Your task to perform on an android device: Clear the shopping cart on bestbuy. Image 0: 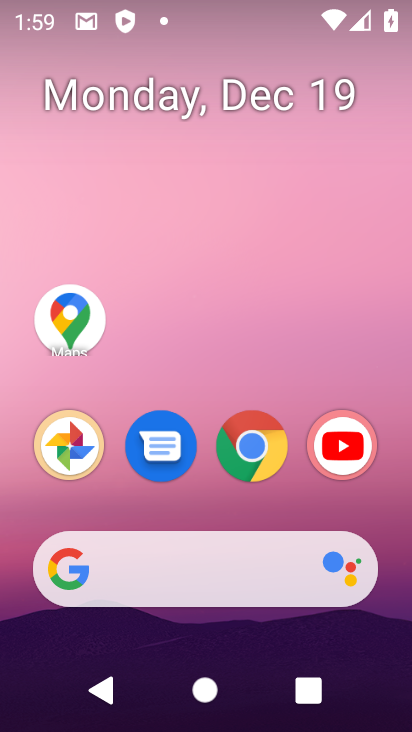
Step 0: click (264, 466)
Your task to perform on an android device: Clear the shopping cart on bestbuy. Image 1: 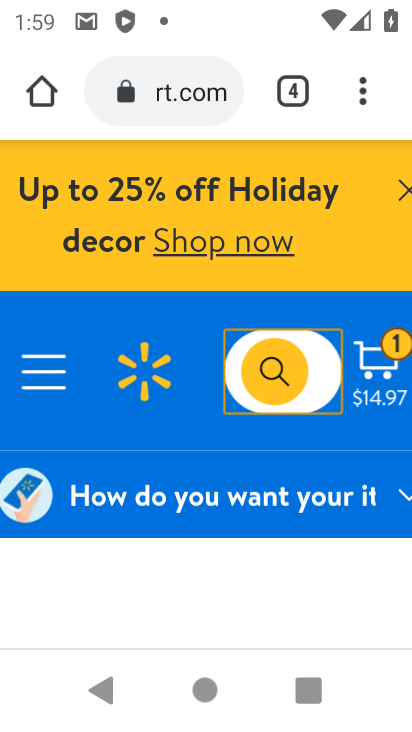
Step 1: click (204, 104)
Your task to perform on an android device: Clear the shopping cart on bestbuy. Image 2: 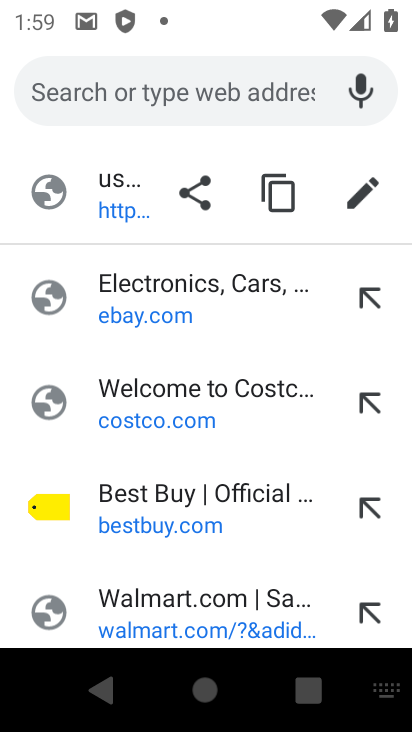
Step 2: type "bestbuy"
Your task to perform on an android device: Clear the shopping cart on bestbuy. Image 3: 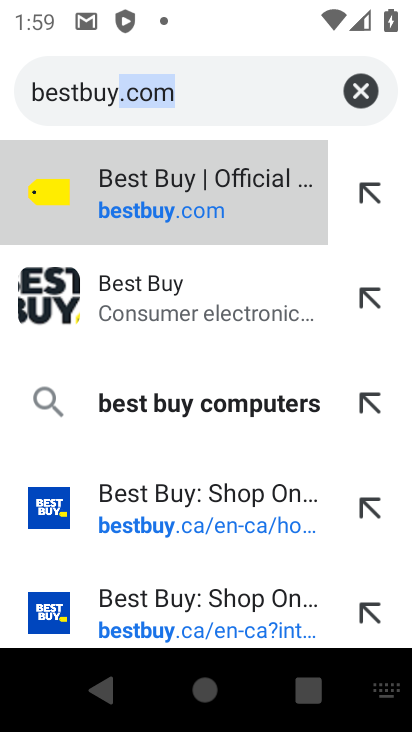
Step 3: click (198, 188)
Your task to perform on an android device: Clear the shopping cart on bestbuy. Image 4: 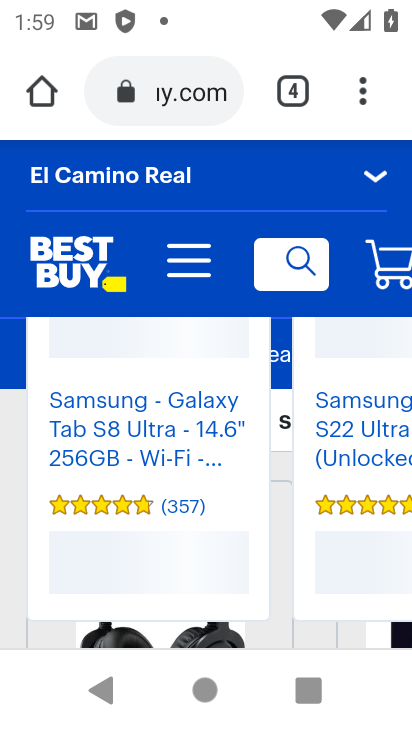
Step 4: click (393, 254)
Your task to perform on an android device: Clear the shopping cart on bestbuy. Image 5: 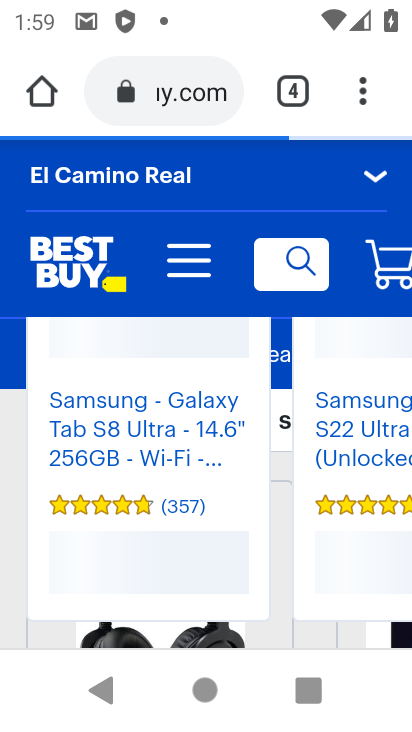
Step 5: task complete